Your task to perform on an android device: Go to ESPN.com Image 0: 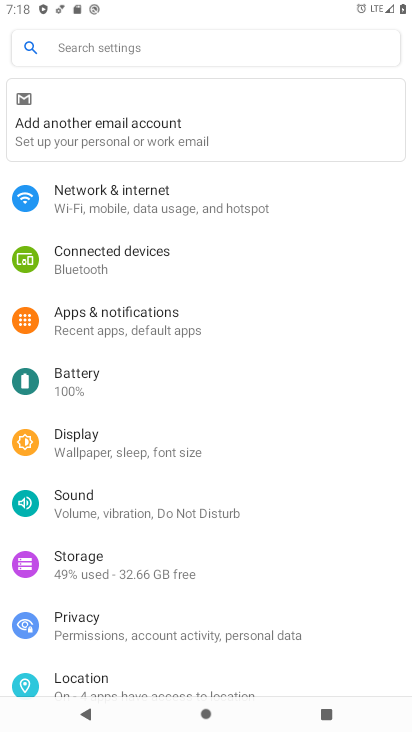
Step 0: press home button
Your task to perform on an android device: Go to ESPN.com Image 1: 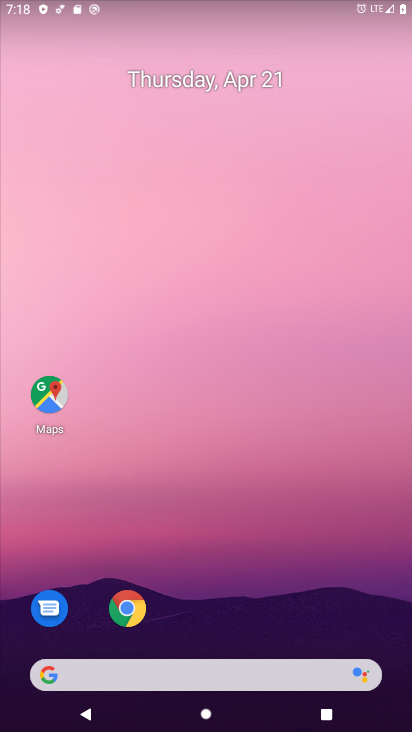
Step 1: click (137, 615)
Your task to perform on an android device: Go to ESPN.com Image 2: 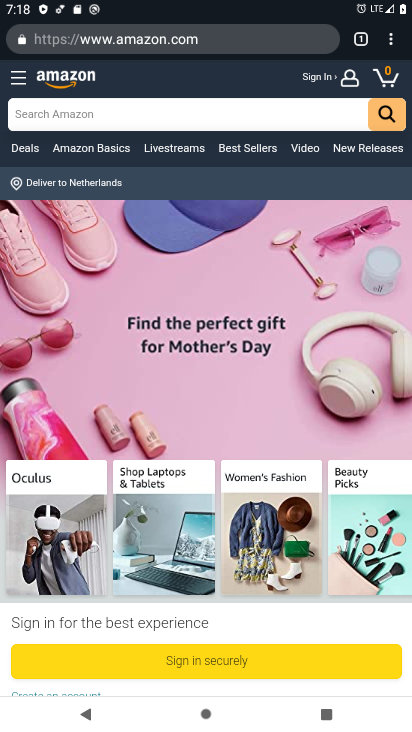
Step 2: click (223, 35)
Your task to perform on an android device: Go to ESPN.com Image 3: 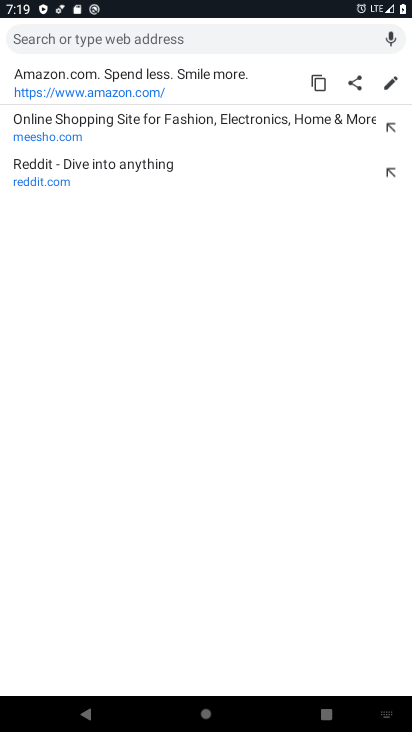
Step 3: type "ESPN.com"
Your task to perform on an android device: Go to ESPN.com Image 4: 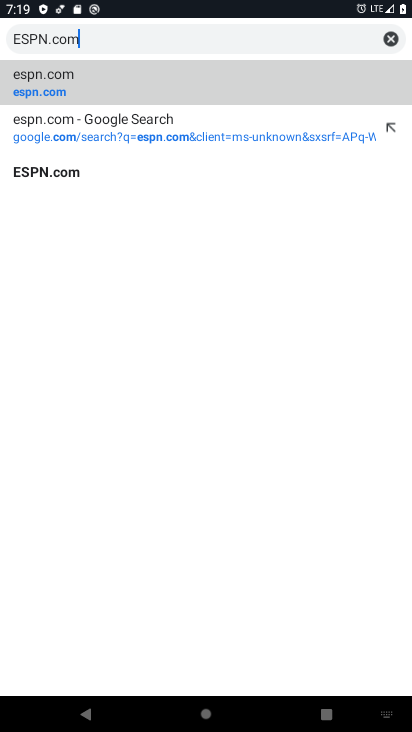
Step 4: click (34, 91)
Your task to perform on an android device: Go to ESPN.com Image 5: 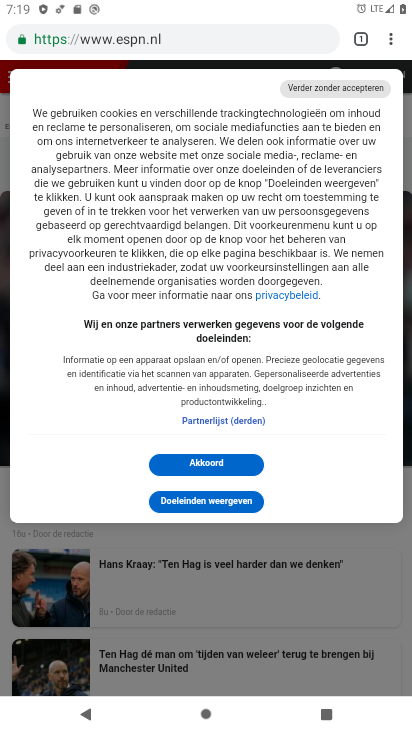
Step 5: task complete